Your task to perform on an android device: Open notification settings Image 0: 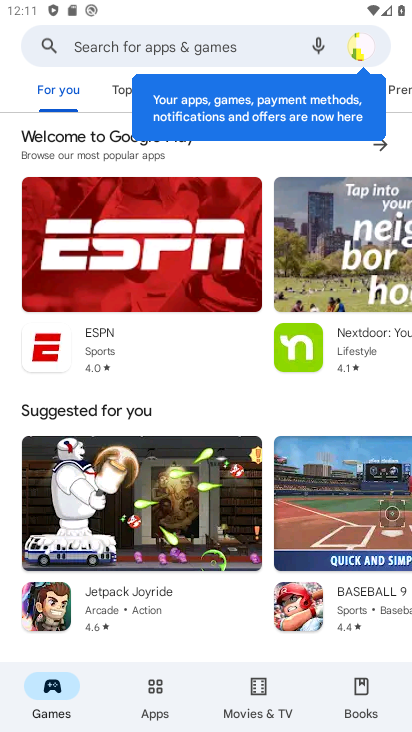
Step 0: press home button
Your task to perform on an android device: Open notification settings Image 1: 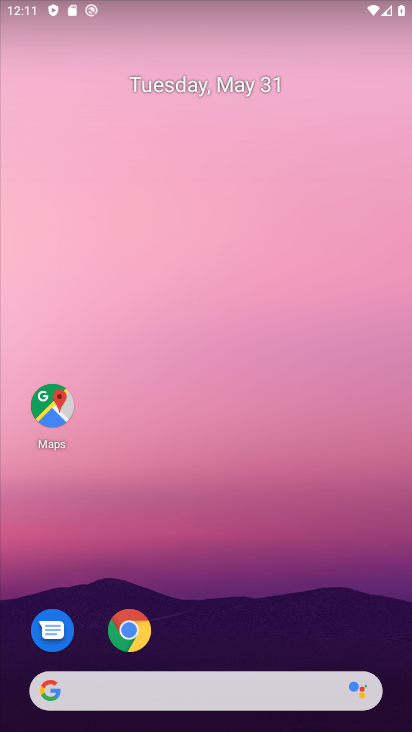
Step 1: drag from (214, 660) to (281, 248)
Your task to perform on an android device: Open notification settings Image 2: 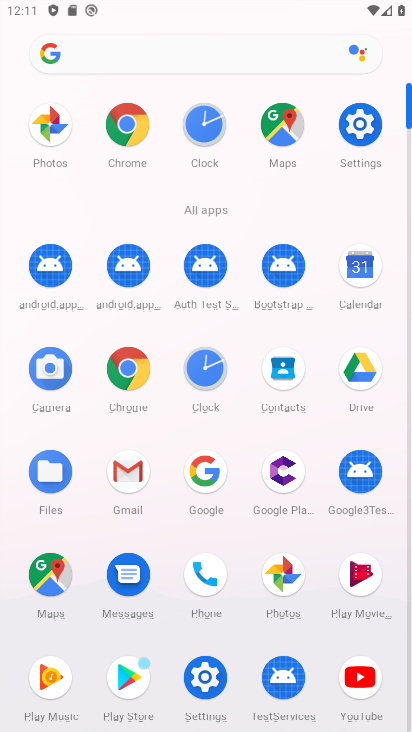
Step 2: click (359, 121)
Your task to perform on an android device: Open notification settings Image 3: 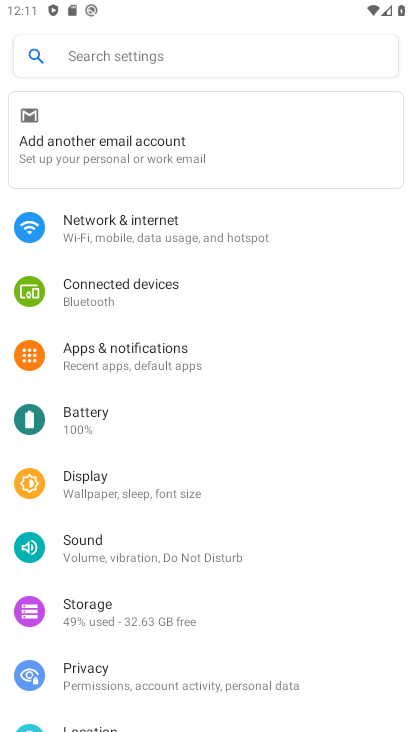
Step 3: click (145, 356)
Your task to perform on an android device: Open notification settings Image 4: 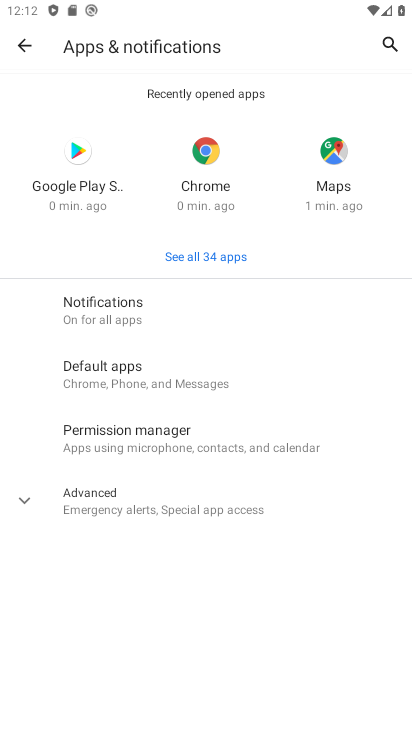
Step 4: task complete